Your task to perform on an android device: Go to Google Image 0: 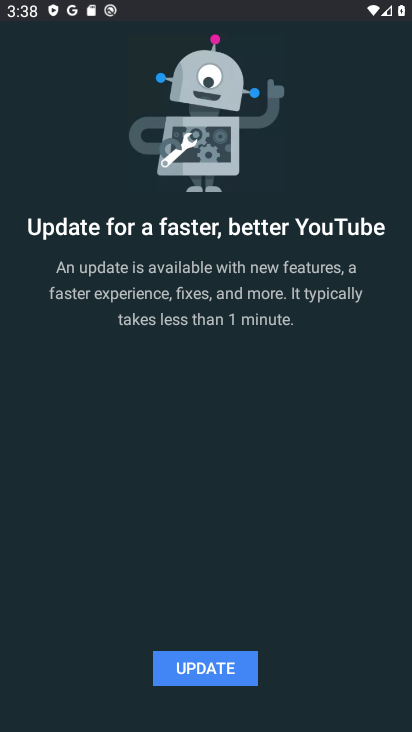
Step 0: press back button
Your task to perform on an android device: Go to Google Image 1: 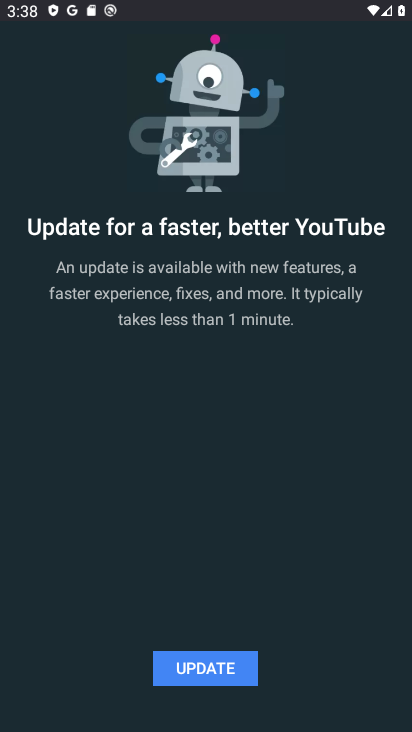
Step 1: press back button
Your task to perform on an android device: Go to Google Image 2: 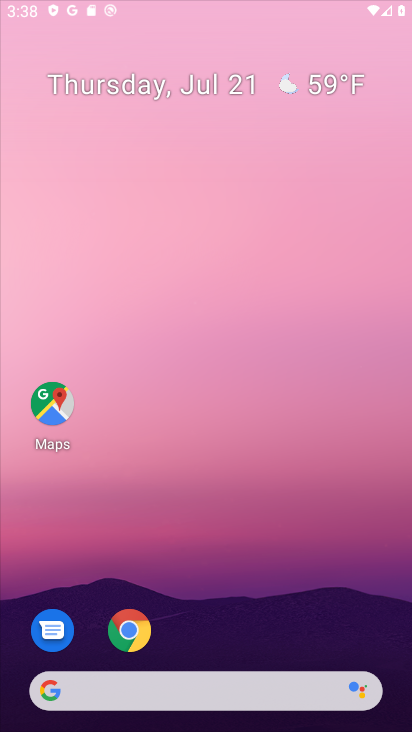
Step 2: press back button
Your task to perform on an android device: Go to Google Image 3: 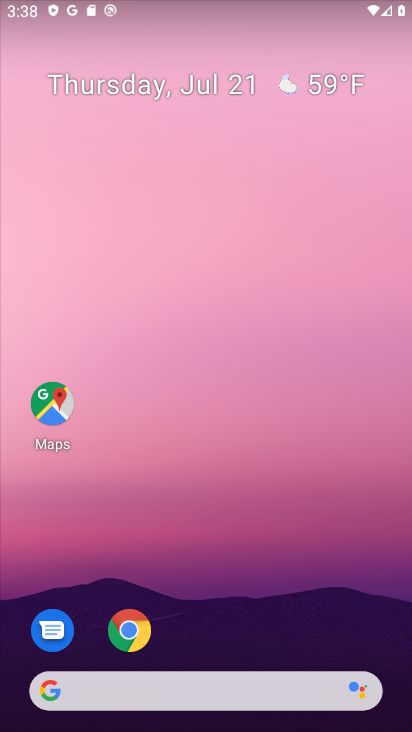
Step 3: drag from (234, 638) to (221, 167)
Your task to perform on an android device: Go to Google Image 4: 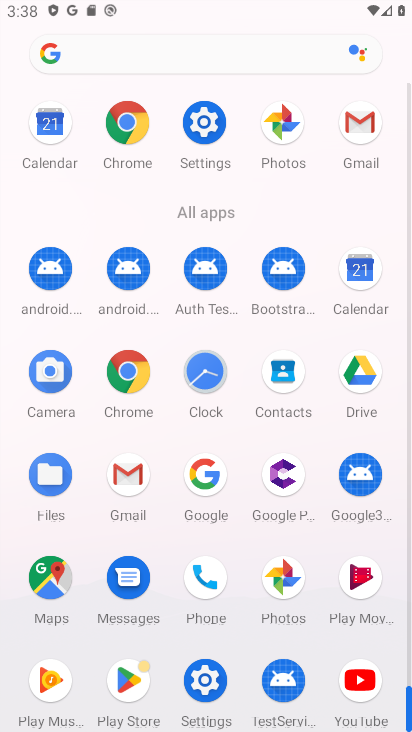
Step 4: click (211, 476)
Your task to perform on an android device: Go to Google Image 5: 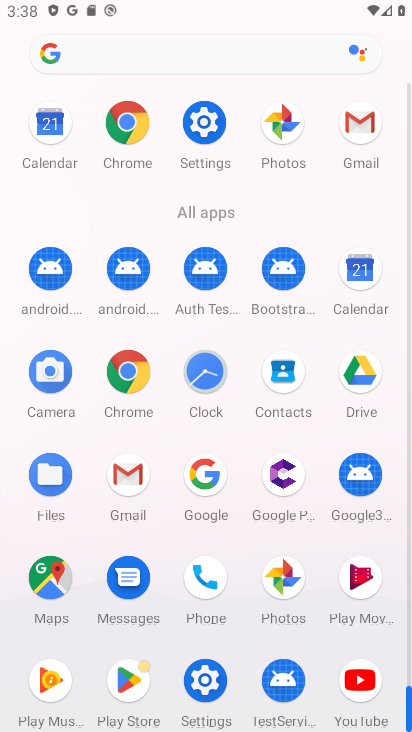
Step 5: click (211, 476)
Your task to perform on an android device: Go to Google Image 6: 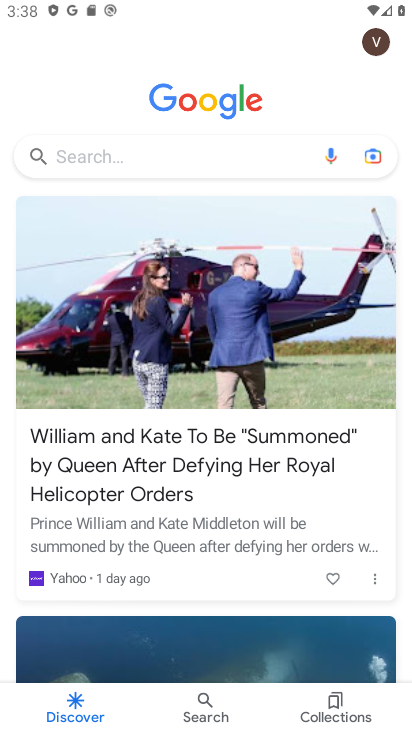
Step 6: task complete